Your task to perform on an android device: turn on priority inbox in the gmail app Image 0: 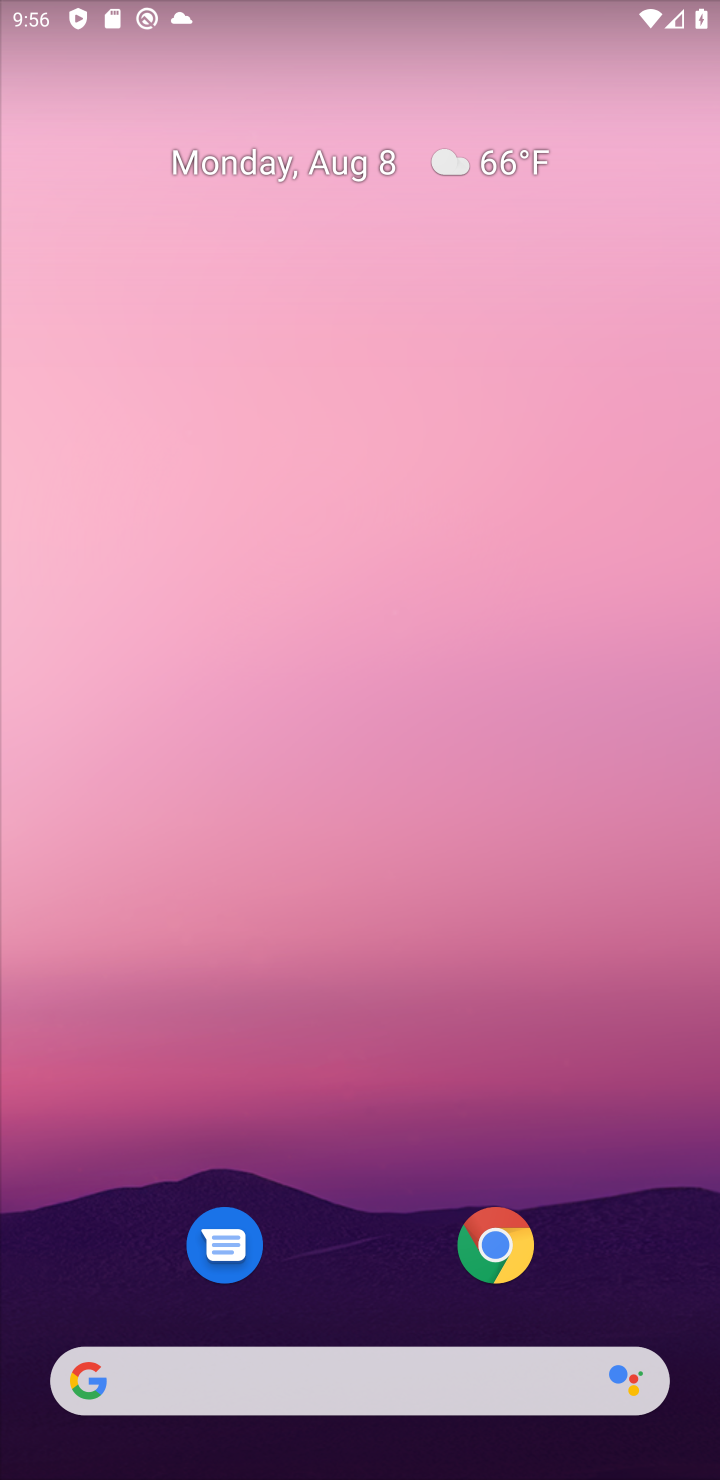
Step 0: drag from (374, 1157) to (330, 218)
Your task to perform on an android device: turn on priority inbox in the gmail app Image 1: 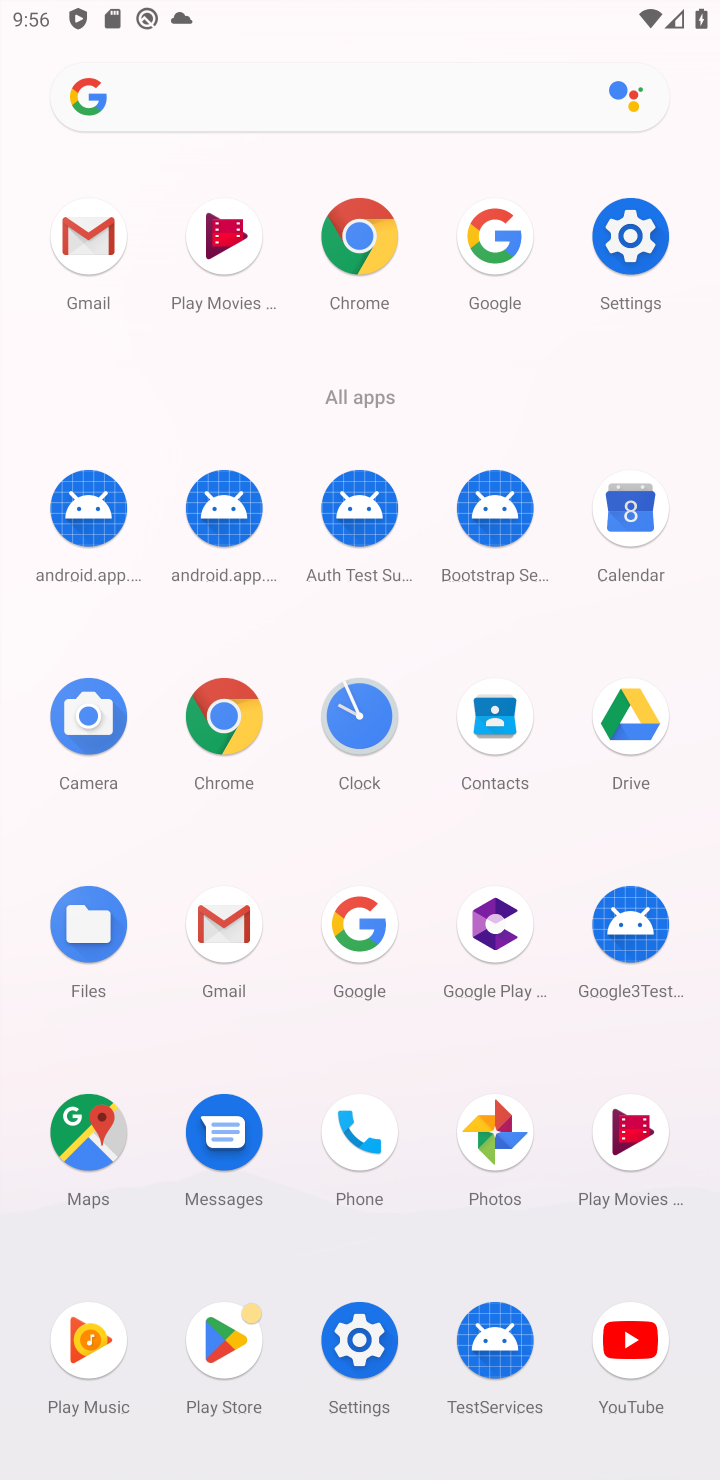
Step 1: click (225, 928)
Your task to perform on an android device: turn on priority inbox in the gmail app Image 2: 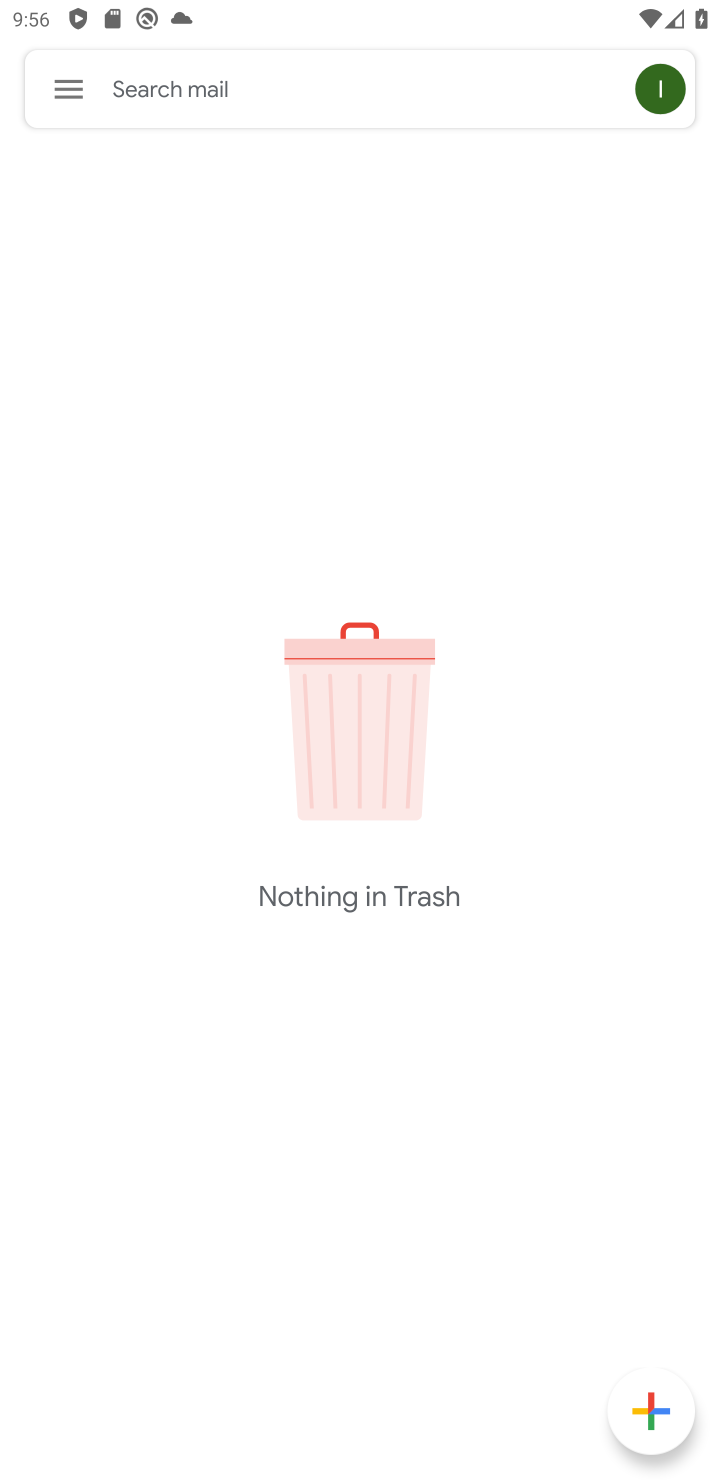
Step 2: click (81, 84)
Your task to perform on an android device: turn on priority inbox in the gmail app Image 3: 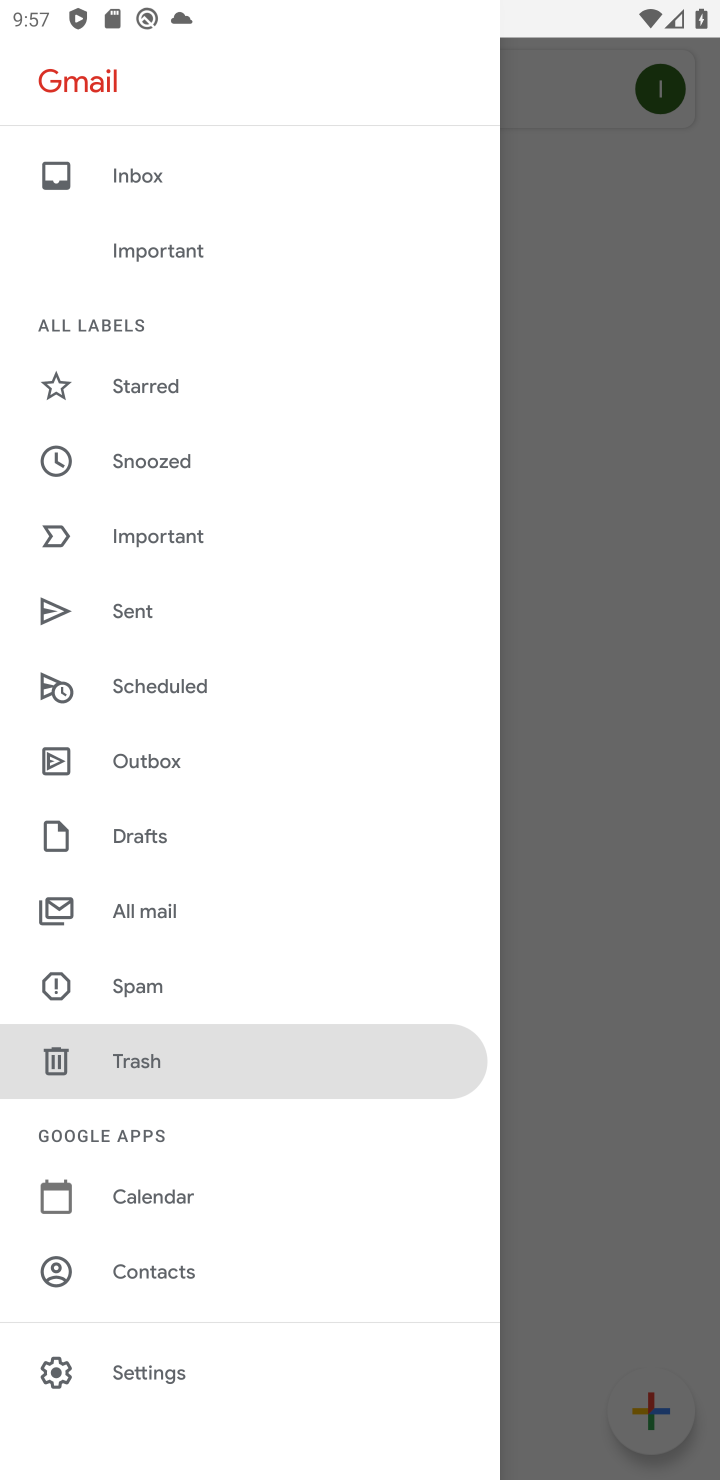
Step 3: click (165, 1377)
Your task to perform on an android device: turn on priority inbox in the gmail app Image 4: 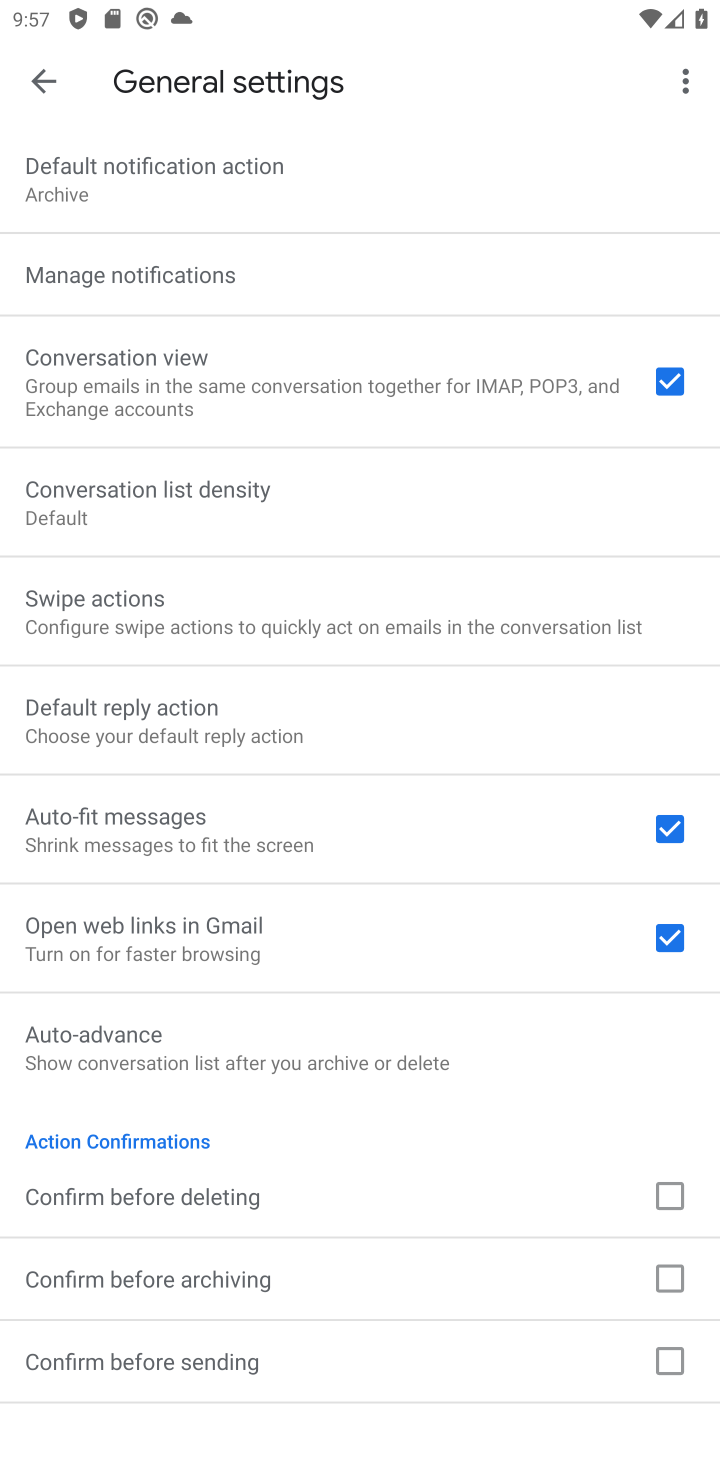
Step 4: click (34, 65)
Your task to perform on an android device: turn on priority inbox in the gmail app Image 5: 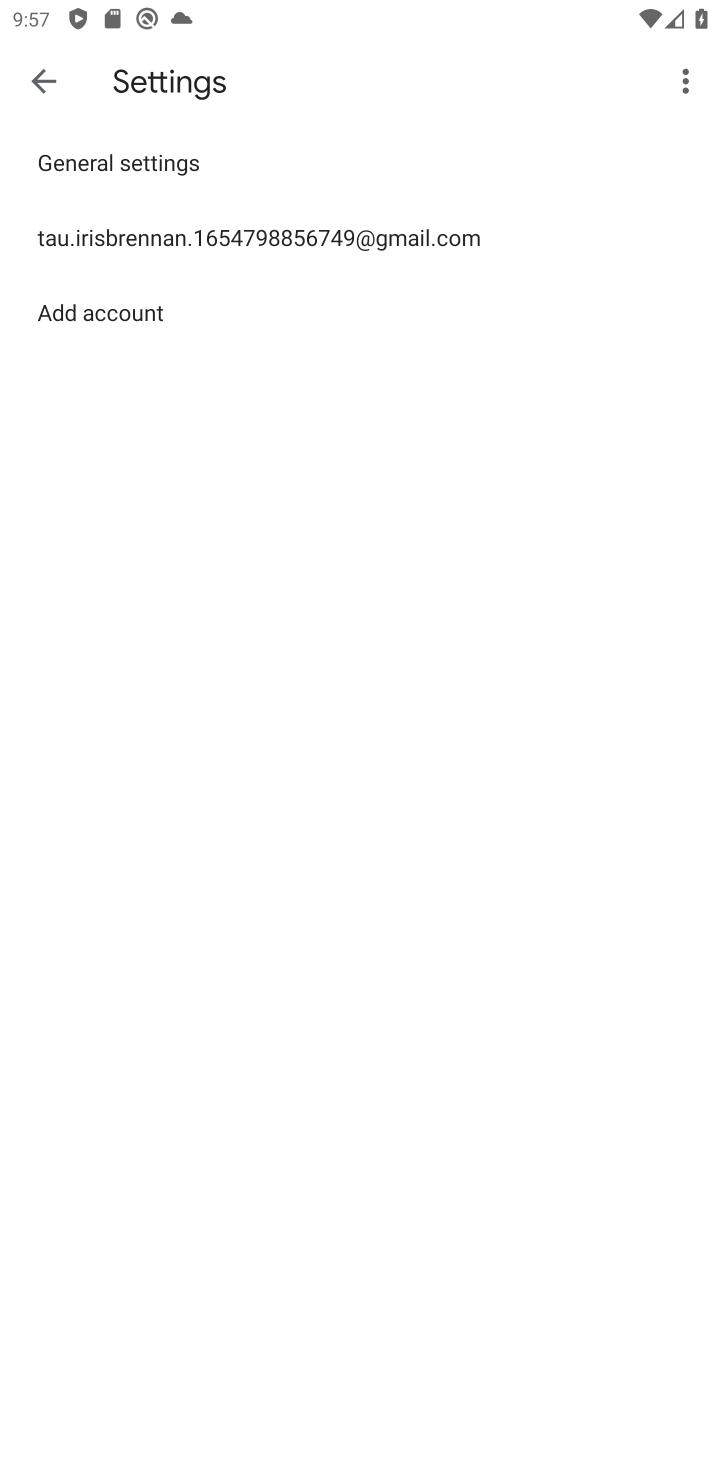
Step 5: click (142, 223)
Your task to perform on an android device: turn on priority inbox in the gmail app Image 6: 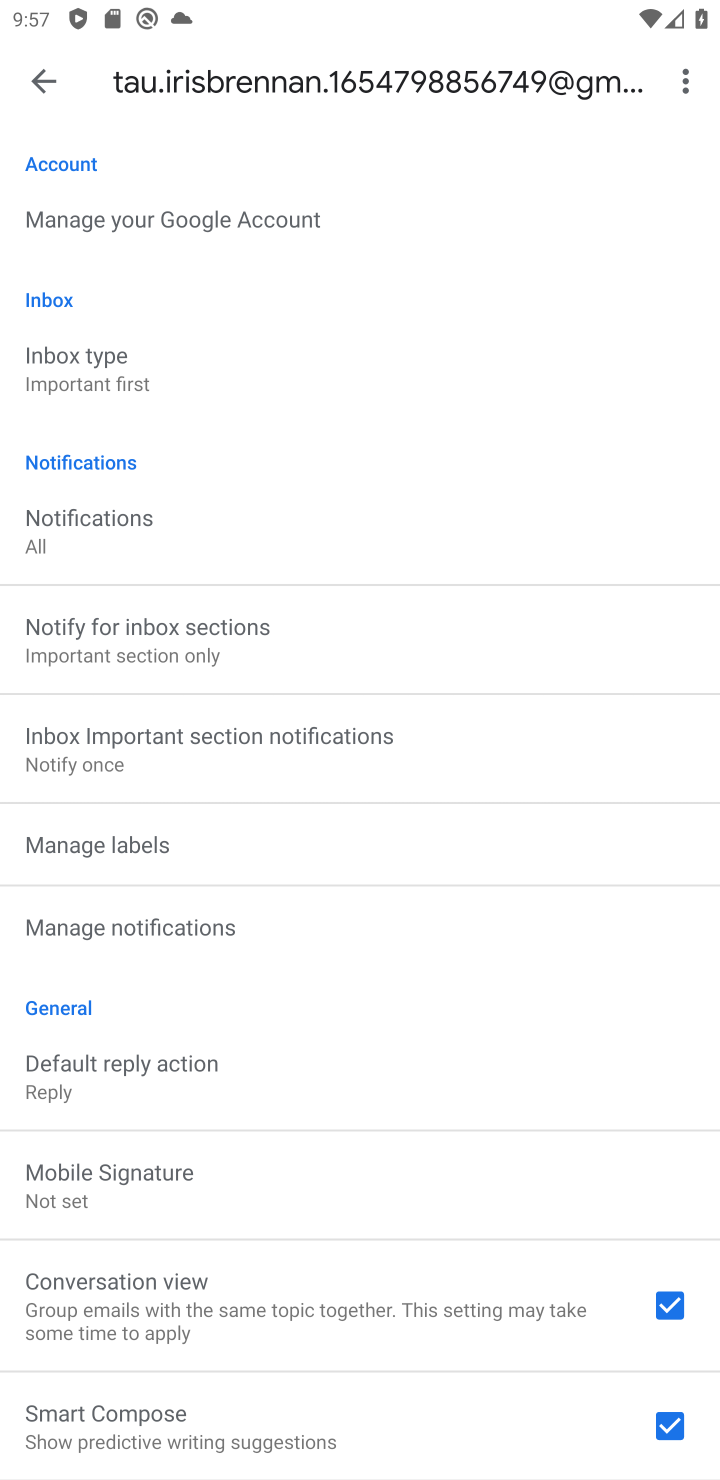
Step 6: click (77, 359)
Your task to perform on an android device: turn on priority inbox in the gmail app Image 7: 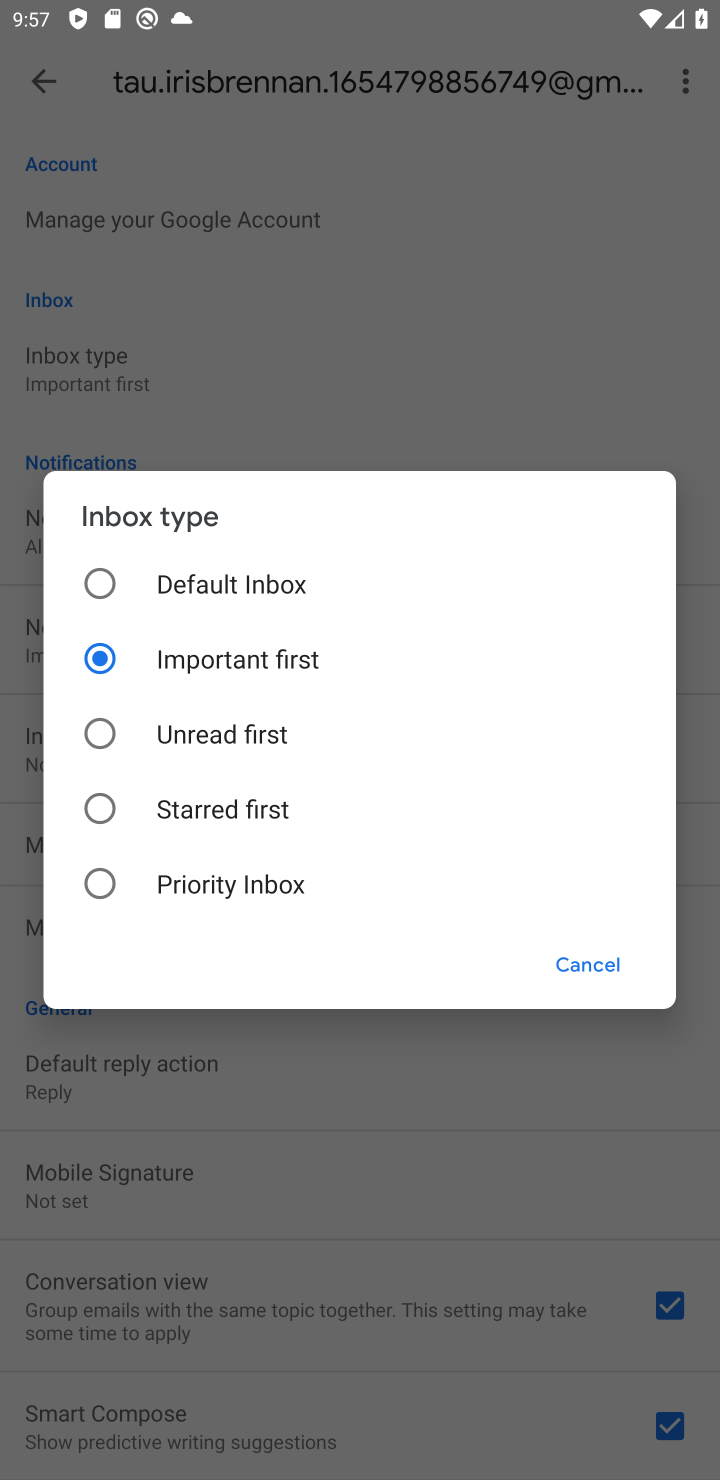
Step 7: click (94, 882)
Your task to perform on an android device: turn on priority inbox in the gmail app Image 8: 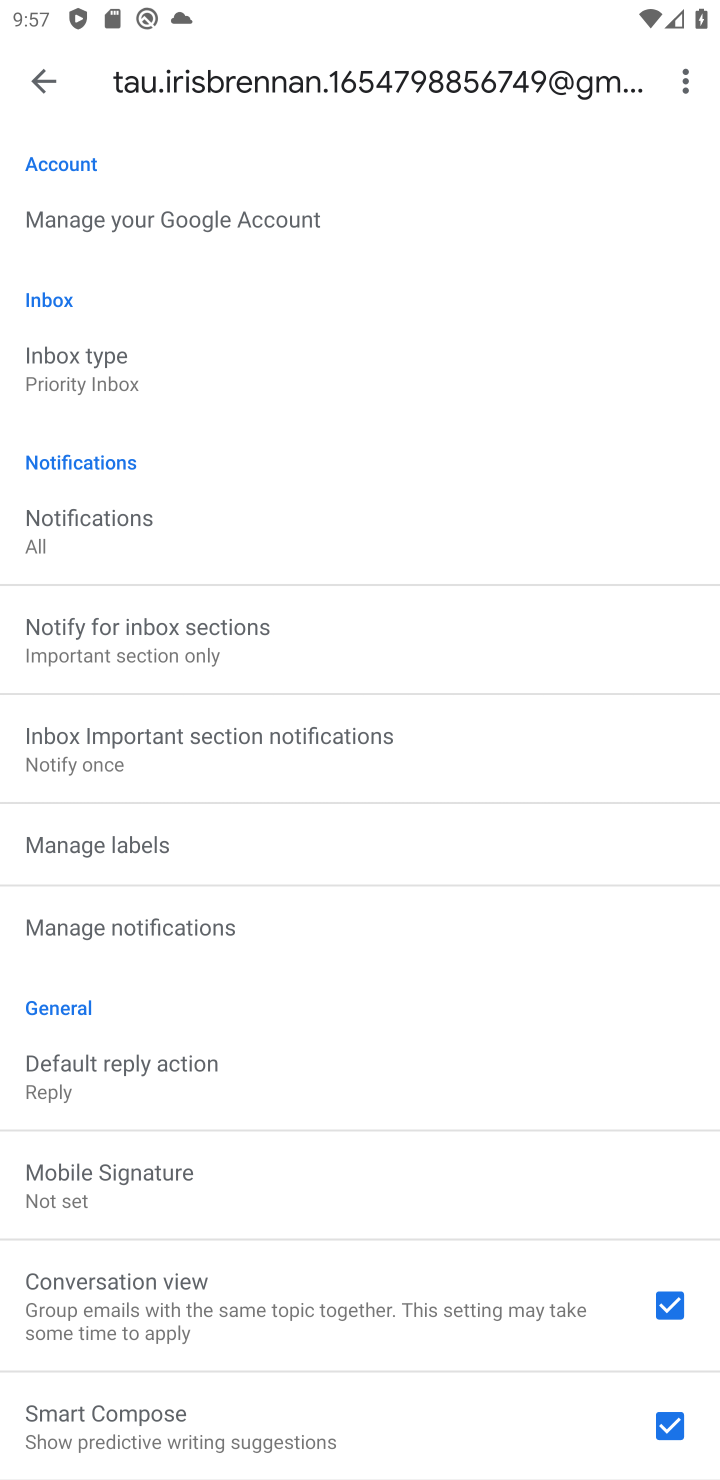
Step 8: task complete